Your task to perform on an android device: Open sound settings Image 0: 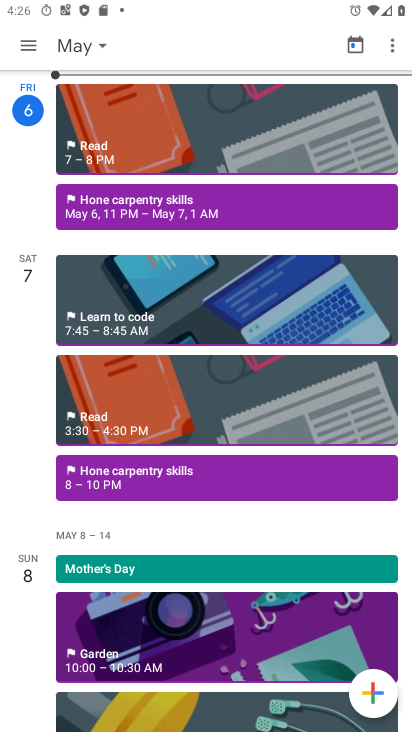
Step 0: press home button
Your task to perform on an android device: Open sound settings Image 1: 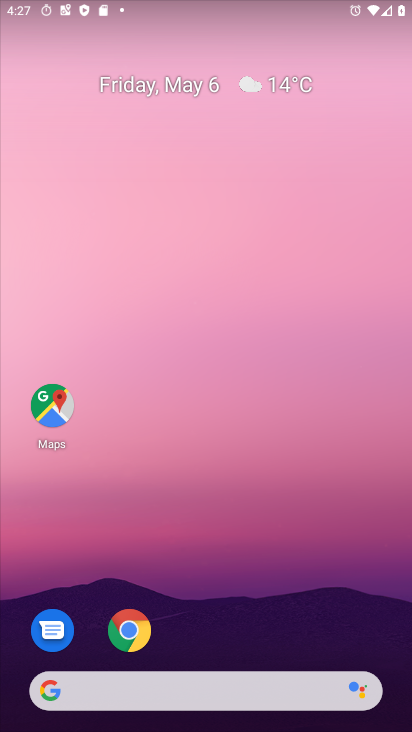
Step 1: drag from (226, 641) to (300, 284)
Your task to perform on an android device: Open sound settings Image 2: 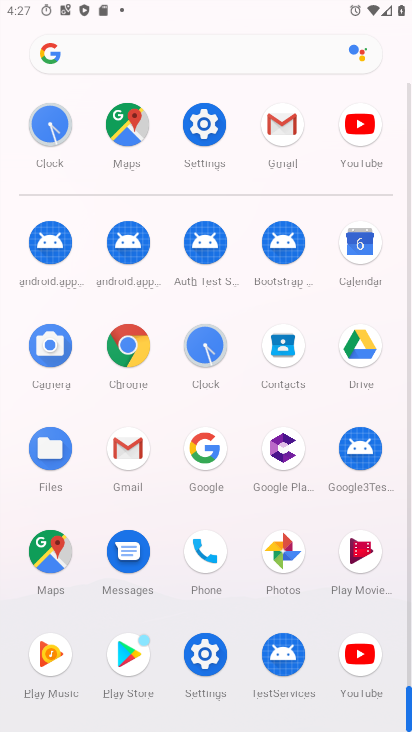
Step 2: click (210, 130)
Your task to perform on an android device: Open sound settings Image 3: 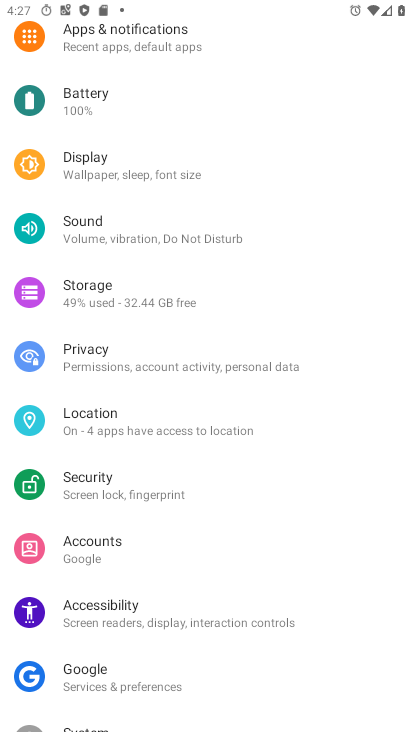
Step 3: click (139, 234)
Your task to perform on an android device: Open sound settings Image 4: 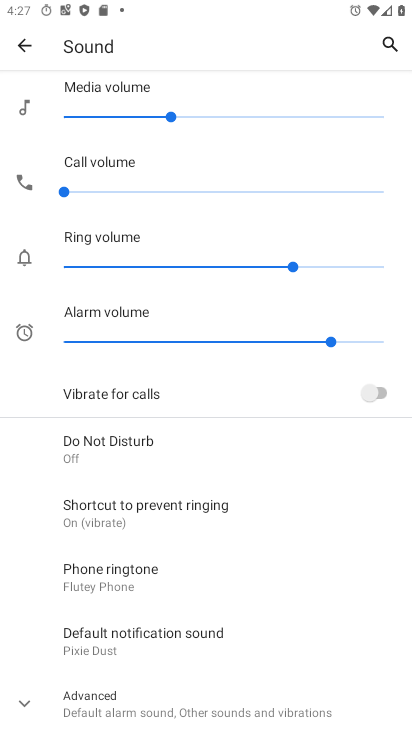
Step 4: task complete